Your task to perform on an android device: turn on location history Image 0: 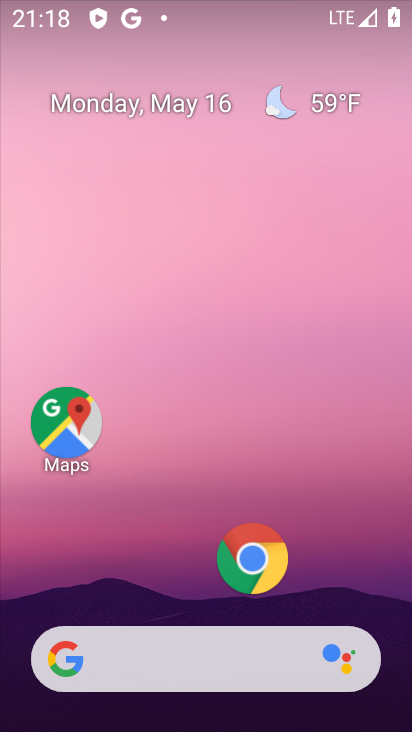
Step 0: drag from (206, 536) to (284, 19)
Your task to perform on an android device: turn on location history Image 1: 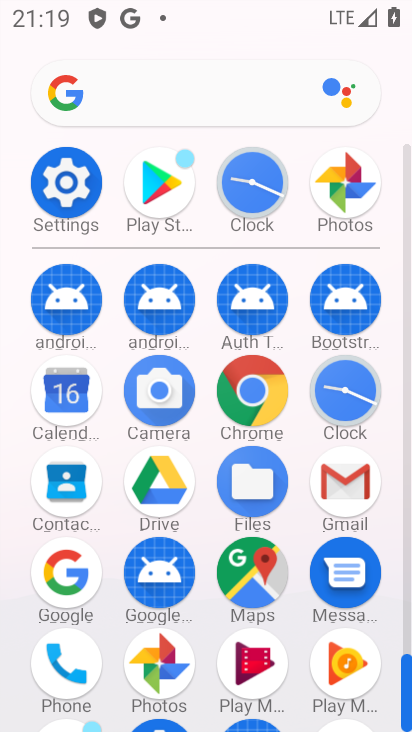
Step 1: click (60, 190)
Your task to perform on an android device: turn on location history Image 2: 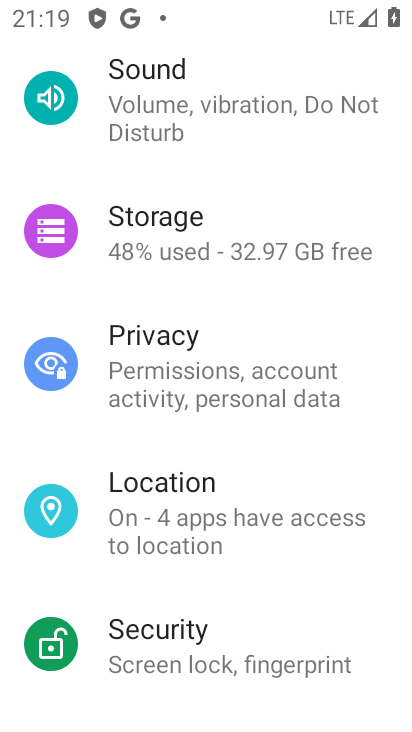
Step 2: click (168, 504)
Your task to perform on an android device: turn on location history Image 3: 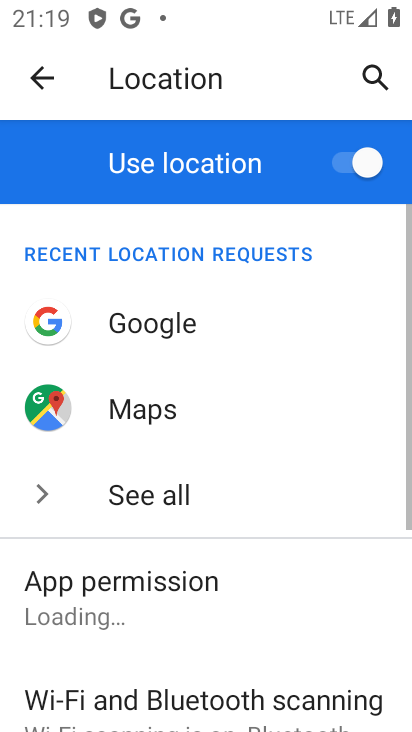
Step 3: drag from (153, 577) to (251, 149)
Your task to perform on an android device: turn on location history Image 4: 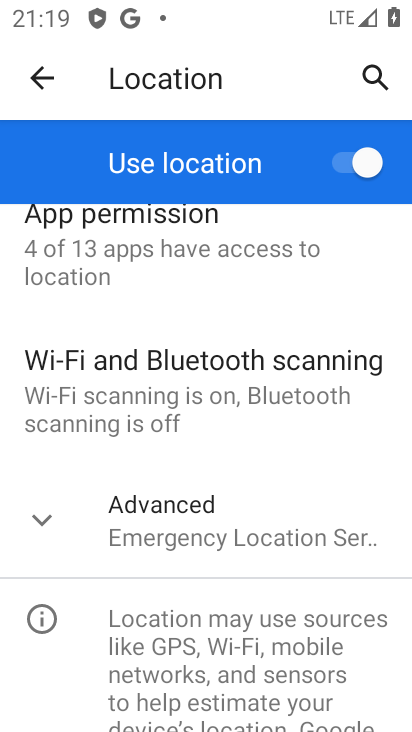
Step 4: click (207, 545)
Your task to perform on an android device: turn on location history Image 5: 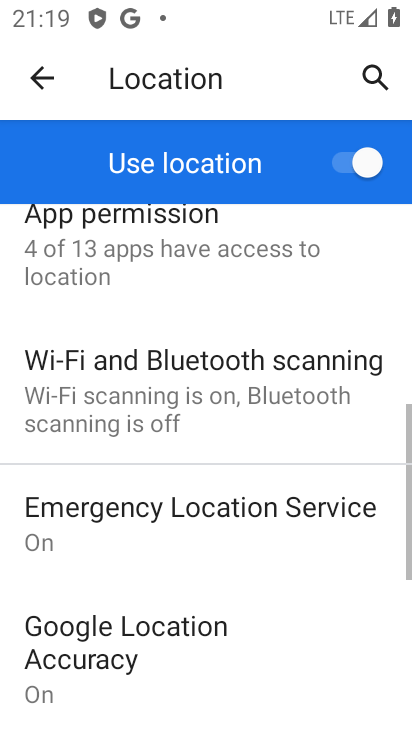
Step 5: drag from (176, 616) to (288, 199)
Your task to perform on an android device: turn on location history Image 6: 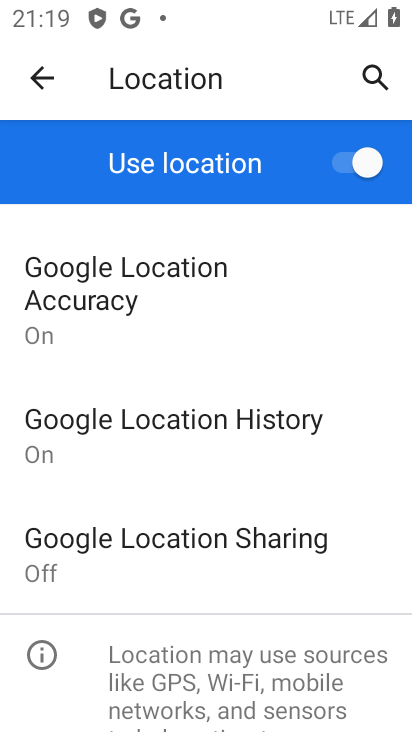
Step 6: click (149, 451)
Your task to perform on an android device: turn on location history Image 7: 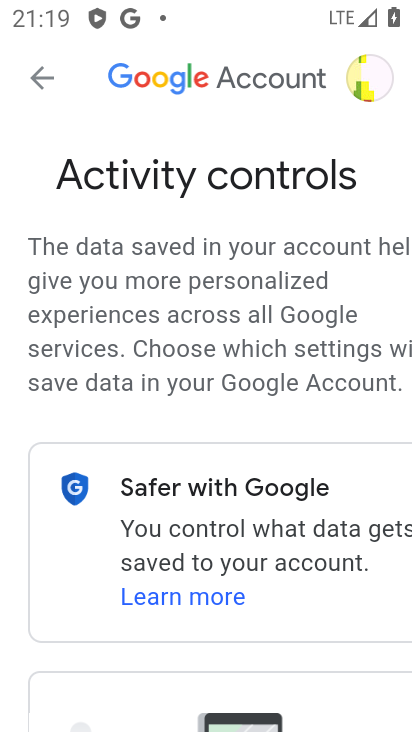
Step 7: task complete